Your task to perform on an android device: Open the phone app and click the voicemail tab. Image 0: 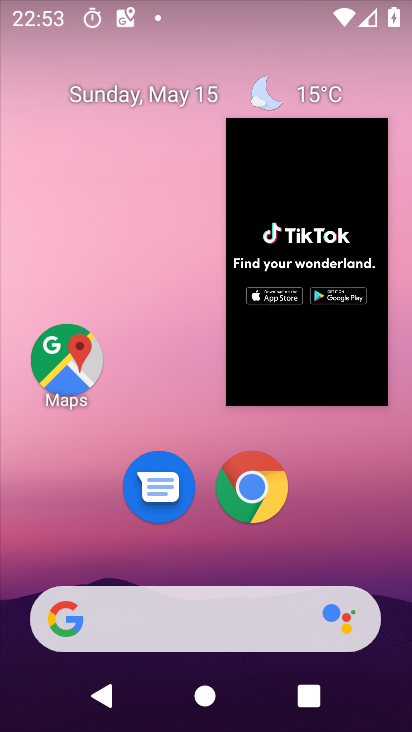
Step 0: press home button
Your task to perform on an android device: Open the phone app and click the voicemail tab. Image 1: 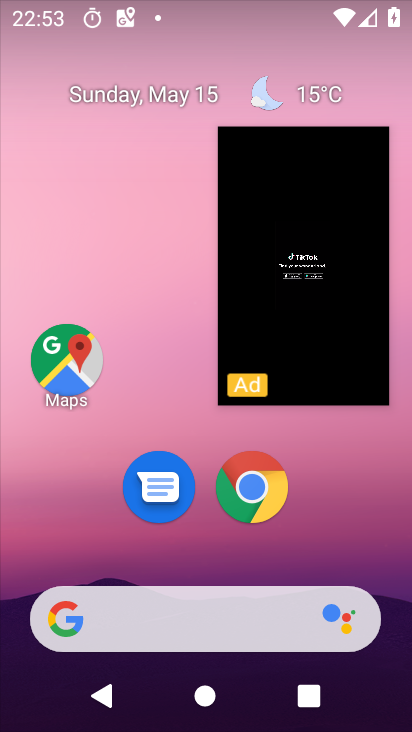
Step 1: click (279, 277)
Your task to perform on an android device: Open the phone app and click the voicemail tab. Image 2: 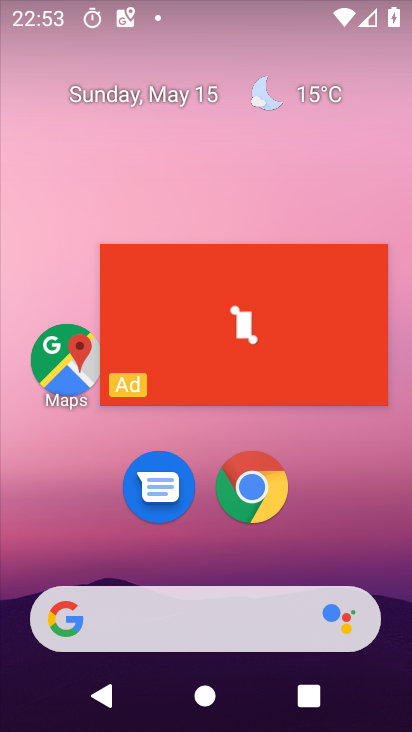
Step 2: drag from (397, 658) to (336, 134)
Your task to perform on an android device: Open the phone app and click the voicemail tab. Image 3: 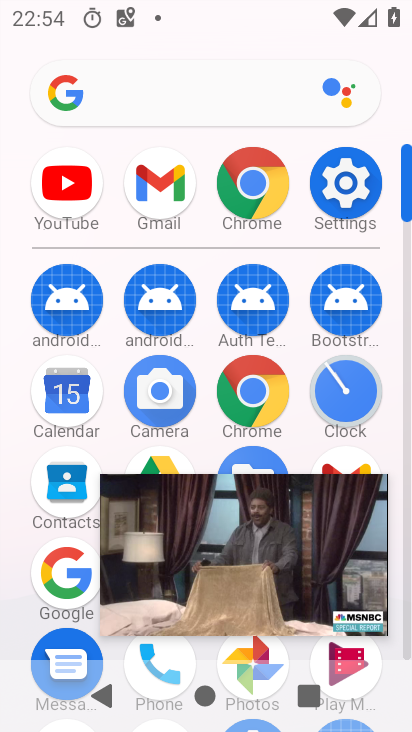
Step 3: drag from (154, 446) to (185, 191)
Your task to perform on an android device: Open the phone app and click the voicemail tab. Image 4: 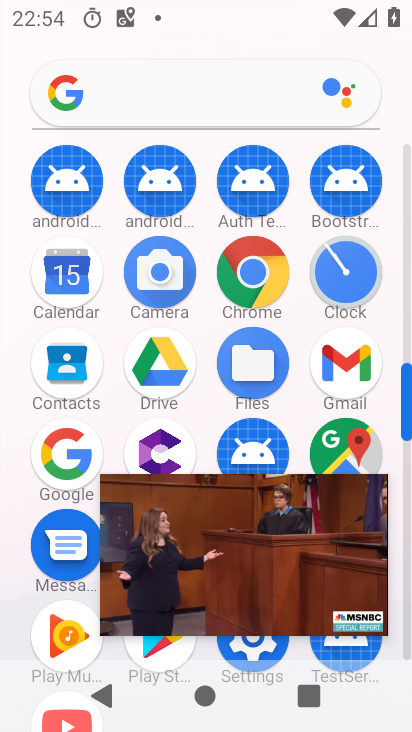
Step 4: drag from (6, 589) to (2, 380)
Your task to perform on an android device: Open the phone app and click the voicemail tab. Image 5: 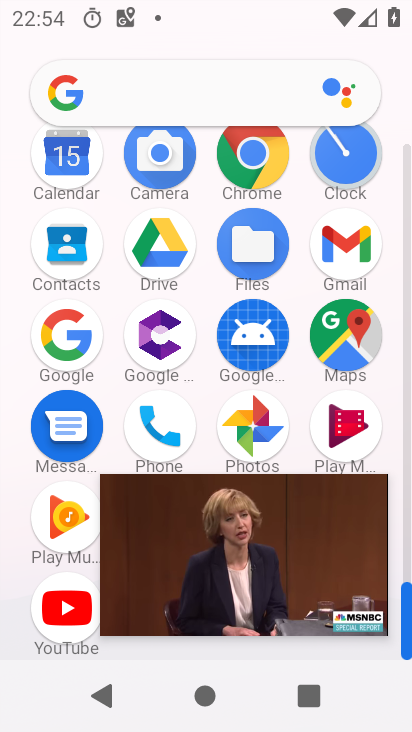
Step 5: click (163, 427)
Your task to perform on an android device: Open the phone app and click the voicemail tab. Image 6: 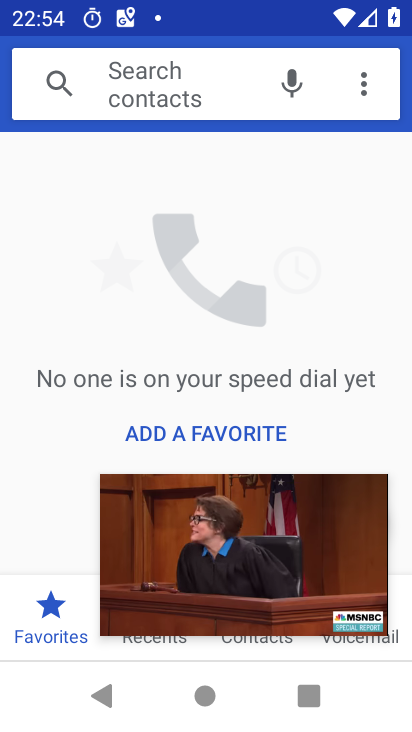
Step 6: click (362, 639)
Your task to perform on an android device: Open the phone app and click the voicemail tab. Image 7: 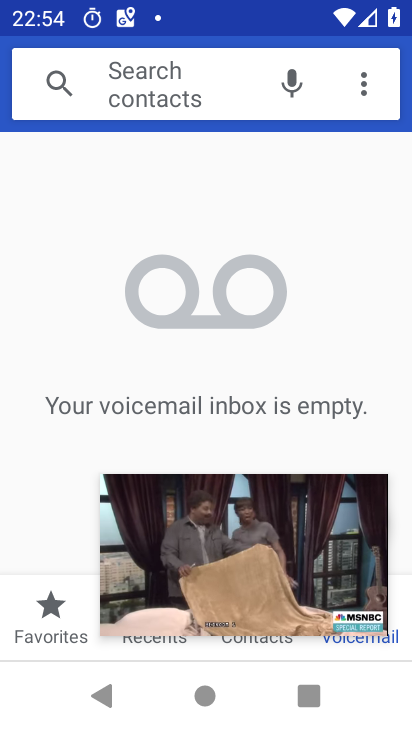
Step 7: task complete